Your task to perform on an android device: Go to Amazon Image 0: 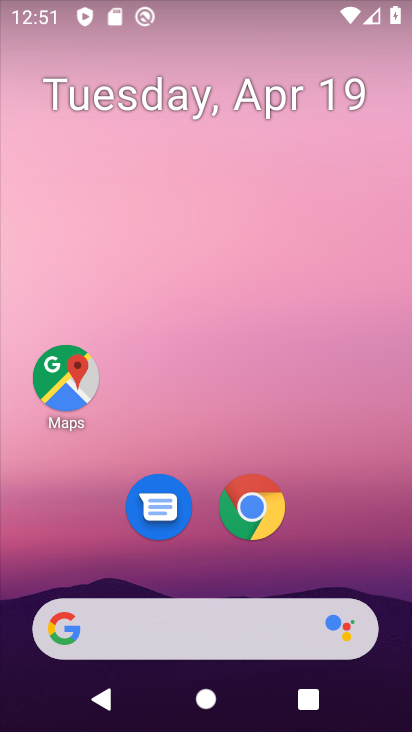
Step 0: click (250, 503)
Your task to perform on an android device: Go to Amazon Image 1: 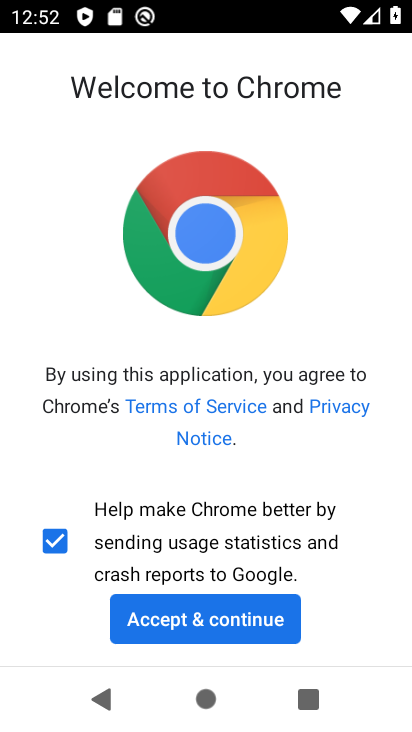
Step 1: click (234, 599)
Your task to perform on an android device: Go to Amazon Image 2: 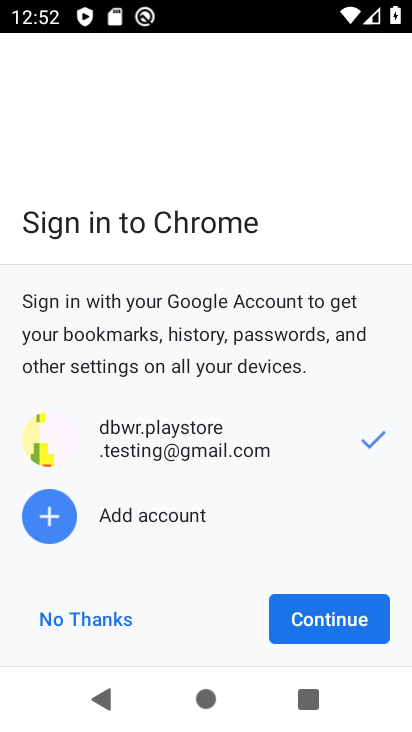
Step 2: click (295, 604)
Your task to perform on an android device: Go to Amazon Image 3: 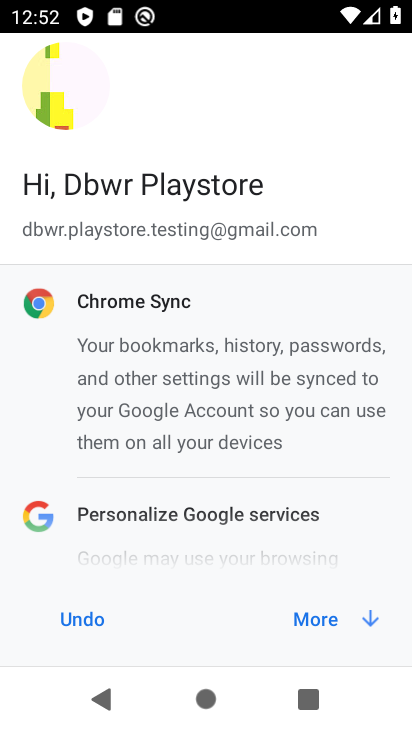
Step 3: click (312, 614)
Your task to perform on an android device: Go to Amazon Image 4: 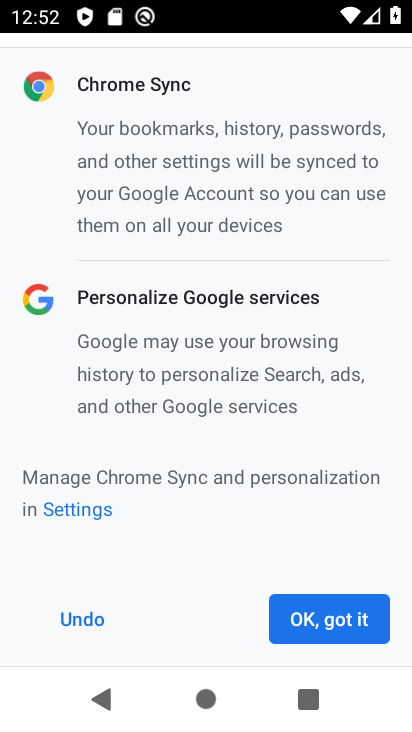
Step 4: click (312, 614)
Your task to perform on an android device: Go to Amazon Image 5: 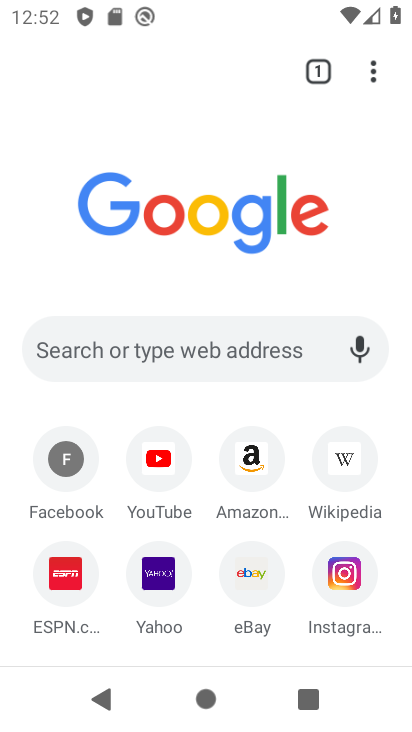
Step 5: click (250, 485)
Your task to perform on an android device: Go to Amazon Image 6: 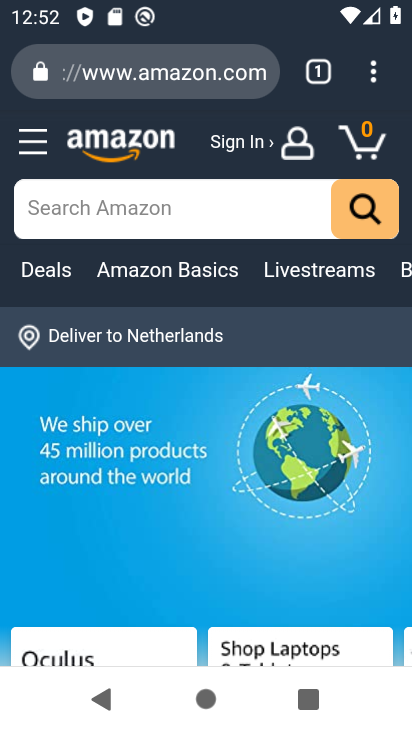
Step 6: task complete